Your task to perform on an android device: turn on location history Image 0: 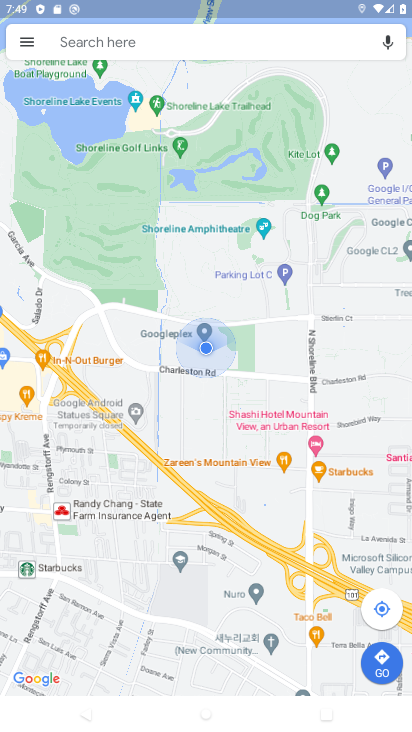
Step 0: press home button
Your task to perform on an android device: turn on location history Image 1: 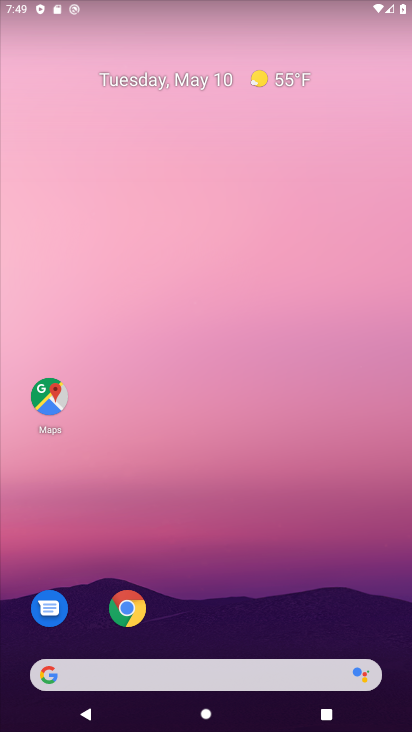
Step 1: drag from (257, 576) to (256, 34)
Your task to perform on an android device: turn on location history Image 2: 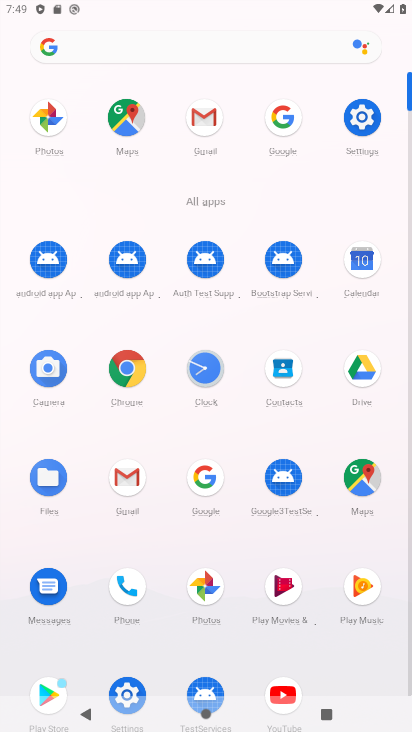
Step 2: click (364, 118)
Your task to perform on an android device: turn on location history Image 3: 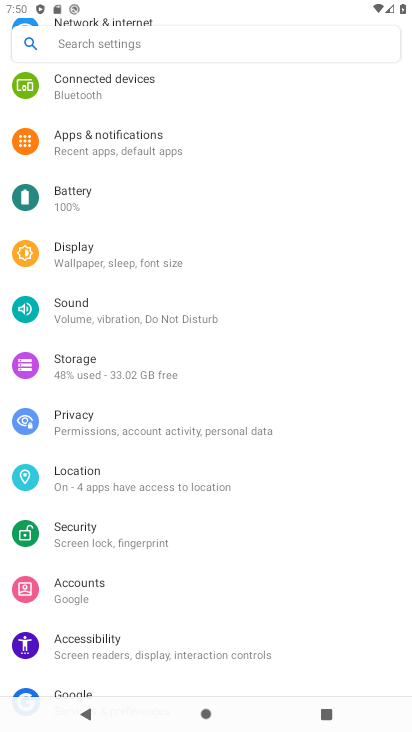
Step 3: drag from (194, 280) to (196, 392)
Your task to perform on an android device: turn on location history Image 4: 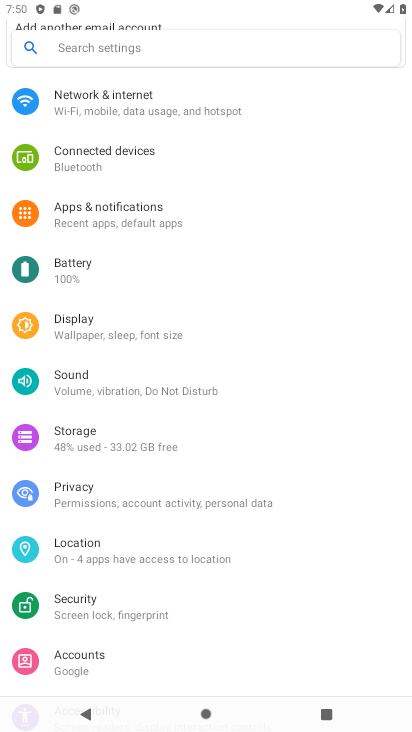
Step 4: click (141, 557)
Your task to perform on an android device: turn on location history Image 5: 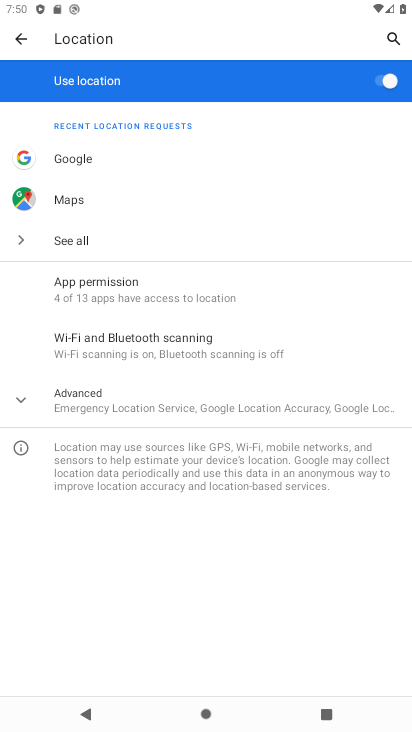
Step 5: click (153, 400)
Your task to perform on an android device: turn on location history Image 6: 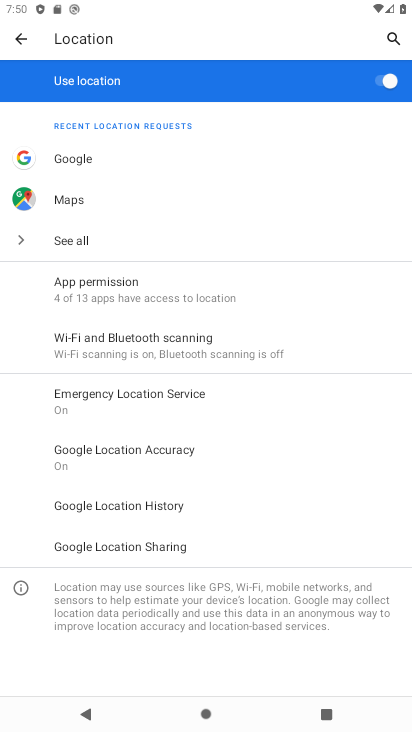
Step 6: click (143, 502)
Your task to perform on an android device: turn on location history Image 7: 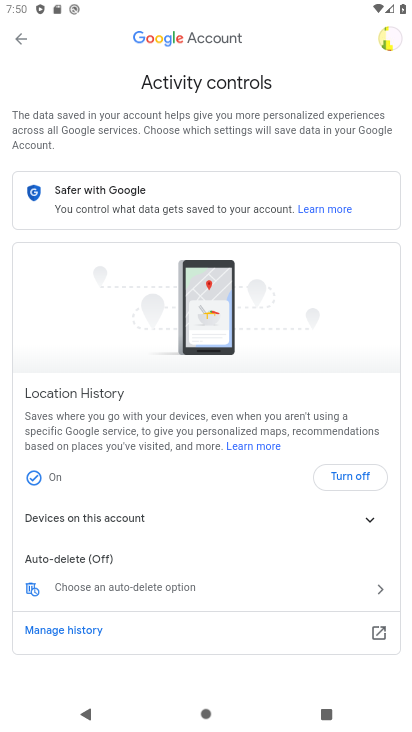
Step 7: task complete